Your task to perform on an android device: uninstall "Microsoft Outlook" Image 0: 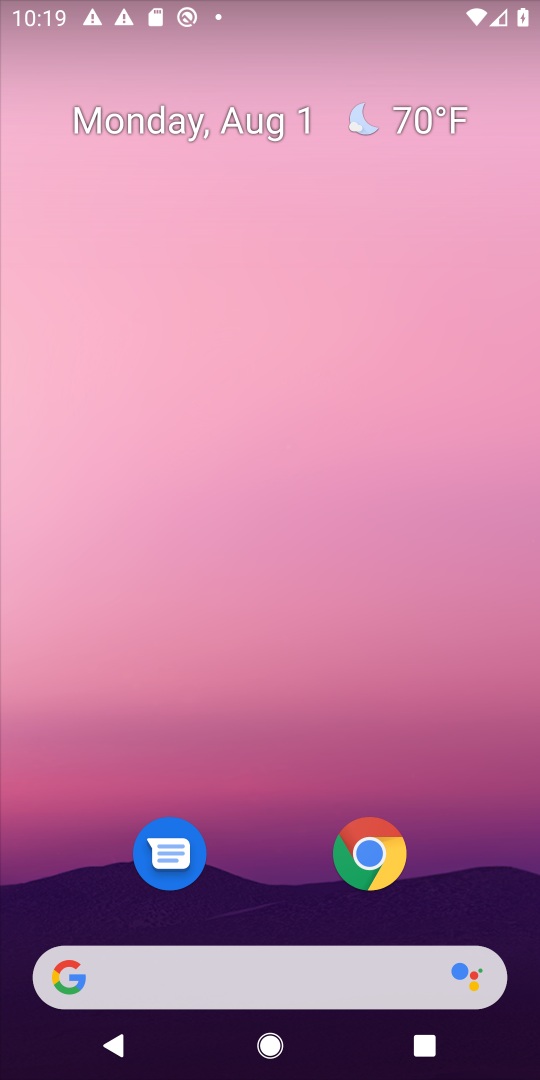
Step 0: drag from (280, 150) to (278, 27)
Your task to perform on an android device: uninstall "Microsoft Outlook" Image 1: 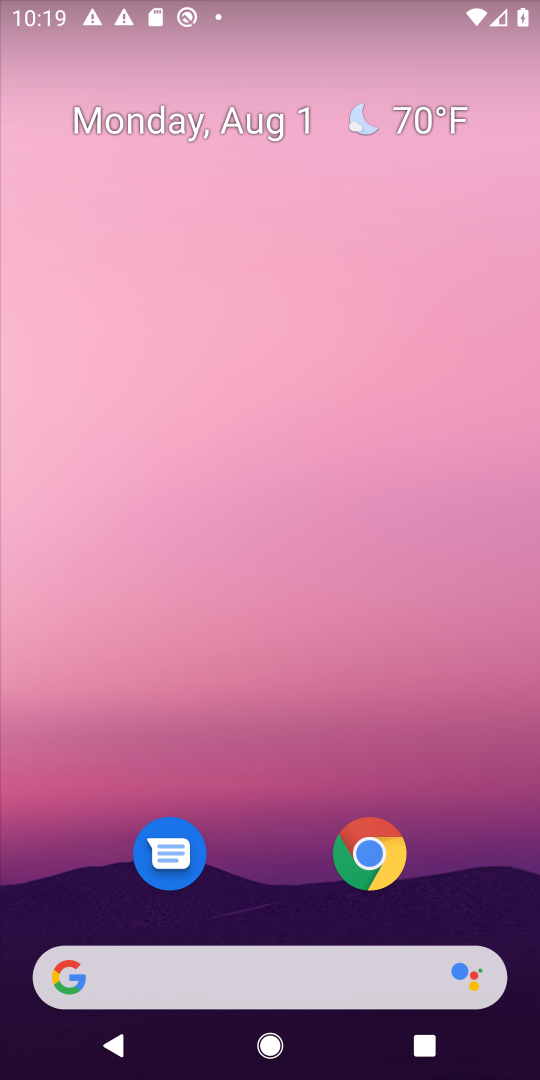
Step 1: drag from (292, 825) to (356, 196)
Your task to perform on an android device: uninstall "Microsoft Outlook" Image 2: 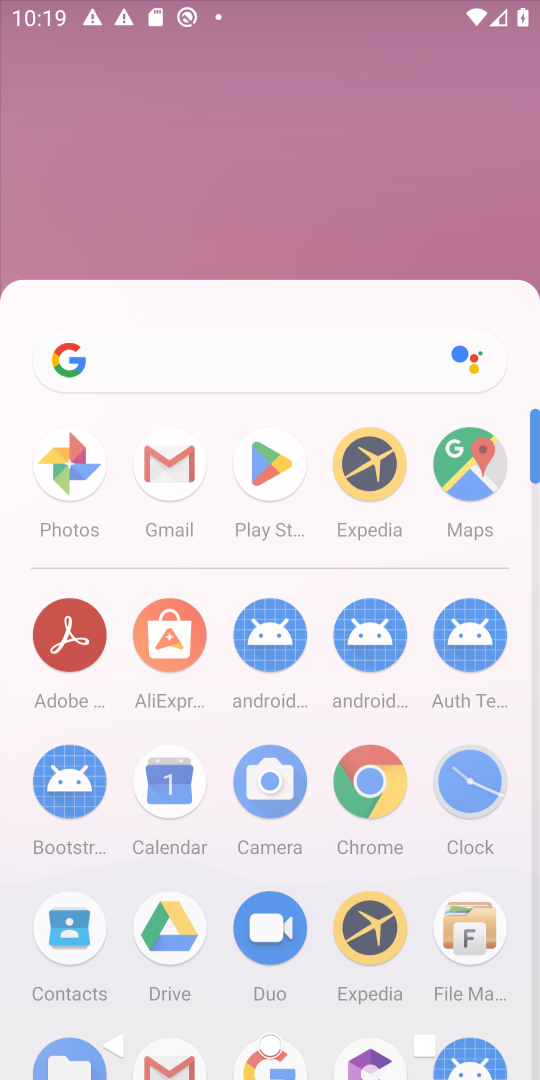
Step 2: drag from (248, 576) to (294, 77)
Your task to perform on an android device: uninstall "Microsoft Outlook" Image 3: 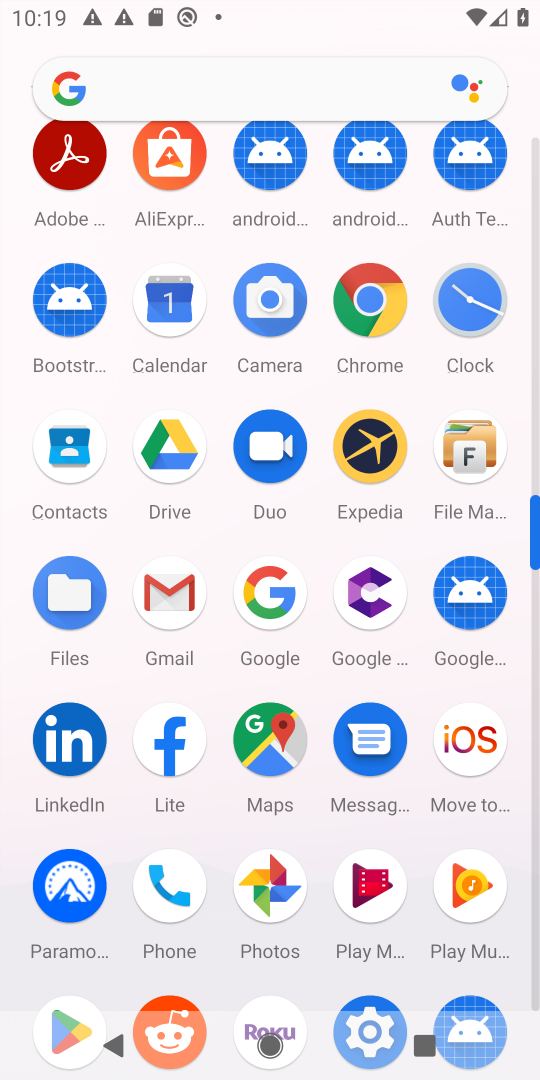
Step 3: drag from (321, 277) to (333, 715)
Your task to perform on an android device: uninstall "Microsoft Outlook" Image 4: 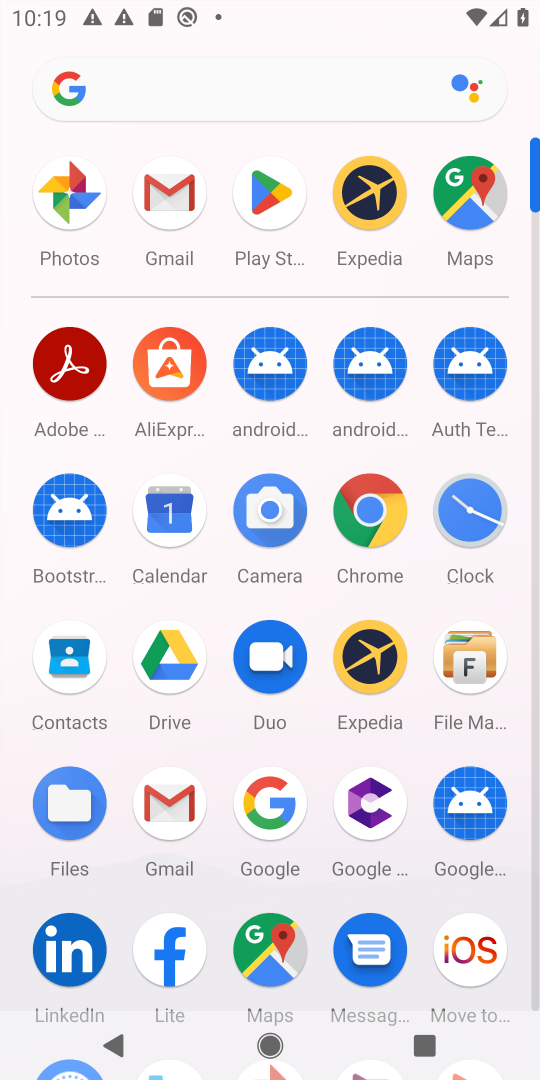
Step 4: click (266, 190)
Your task to perform on an android device: uninstall "Microsoft Outlook" Image 5: 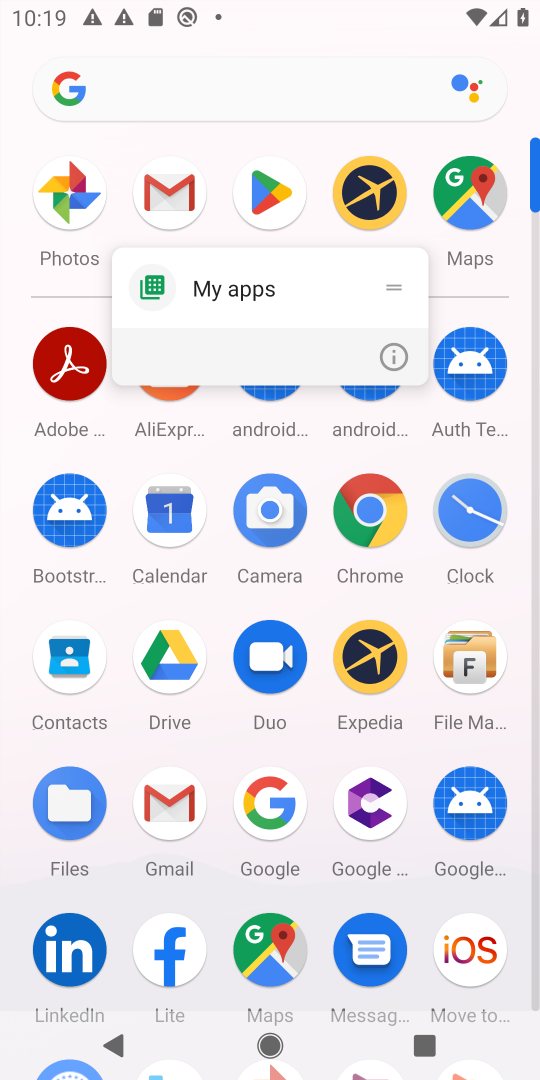
Step 5: click (385, 345)
Your task to perform on an android device: uninstall "Microsoft Outlook" Image 6: 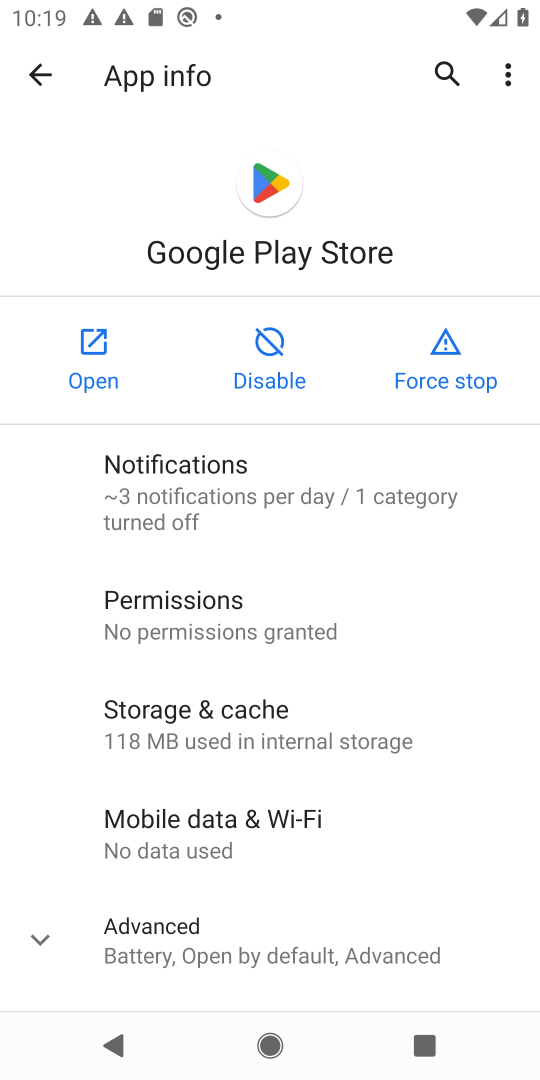
Step 6: click (101, 342)
Your task to perform on an android device: uninstall "Microsoft Outlook" Image 7: 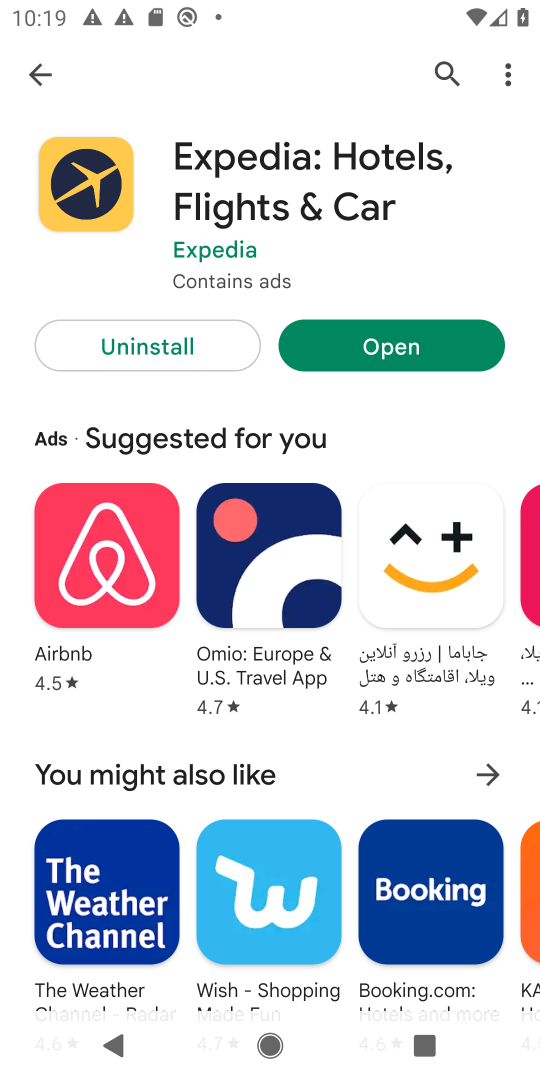
Step 7: click (446, 58)
Your task to perform on an android device: uninstall "Microsoft Outlook" Image 8: 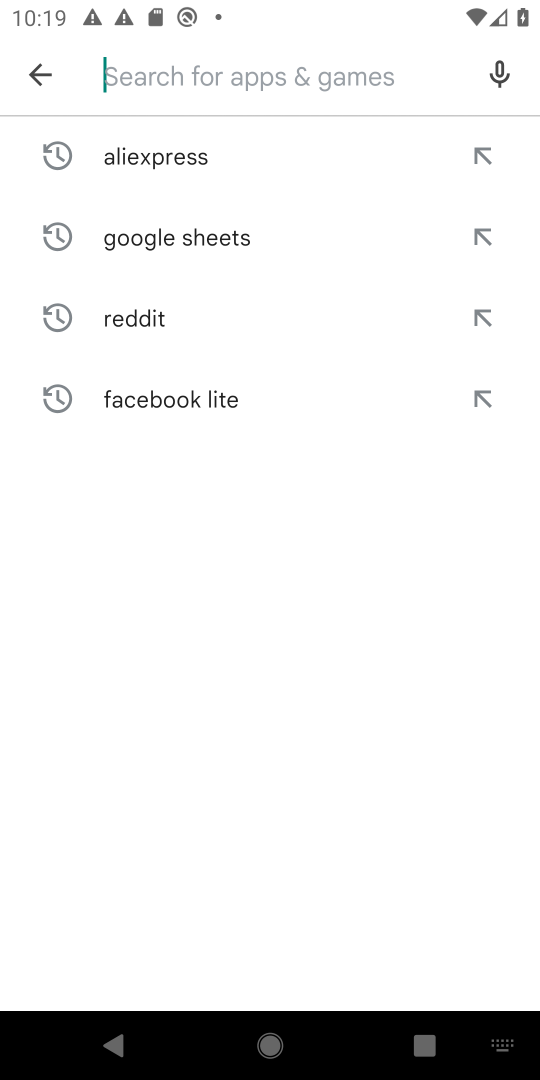
Step 8: type "Microsoft Outlook"
Your task to perform on an android device: uninstall "Microsoft Outlook" Image 9: 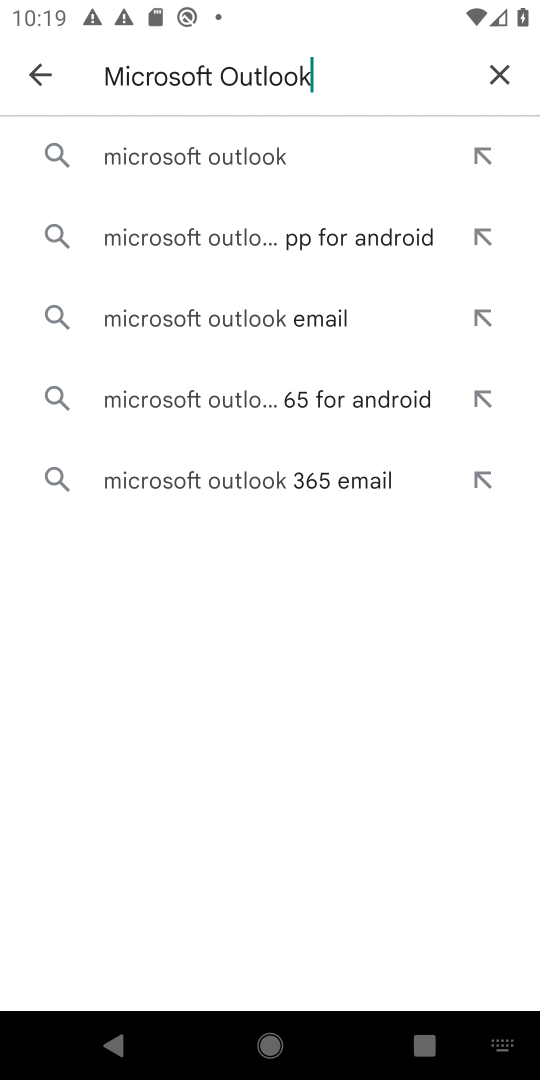
Step 9: click (169, 144)
Your task to perform on an android device: uninstall "Microsoft Outlook" Image 10: 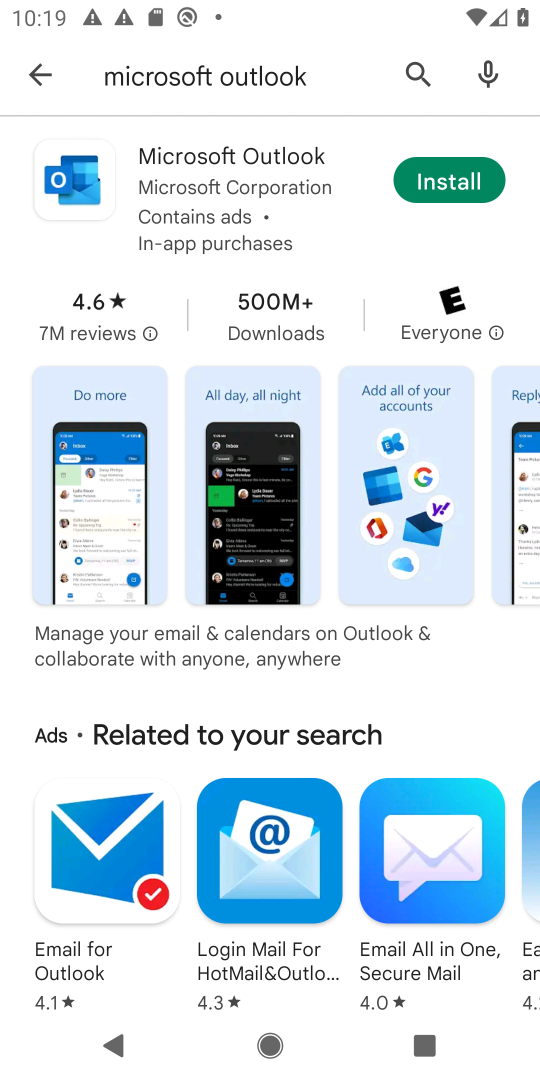
Step 10: click (186, 164)
Your task to perform on an android device: uninstall "Microsoft Outlook" Image 11: 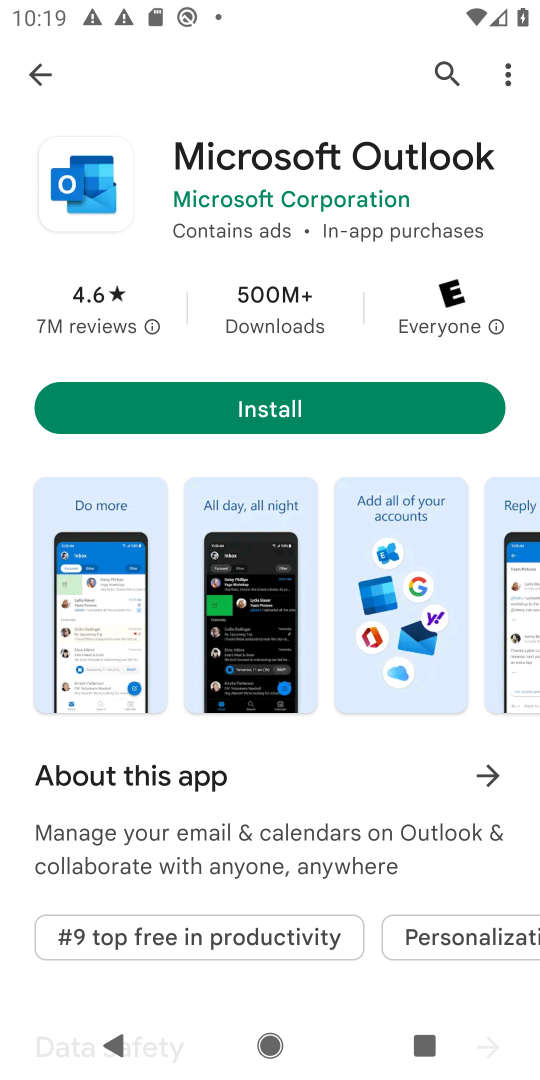
Step 11: task complete